Your task to perform on an android device: check the backup settings in the google photos Image 0: 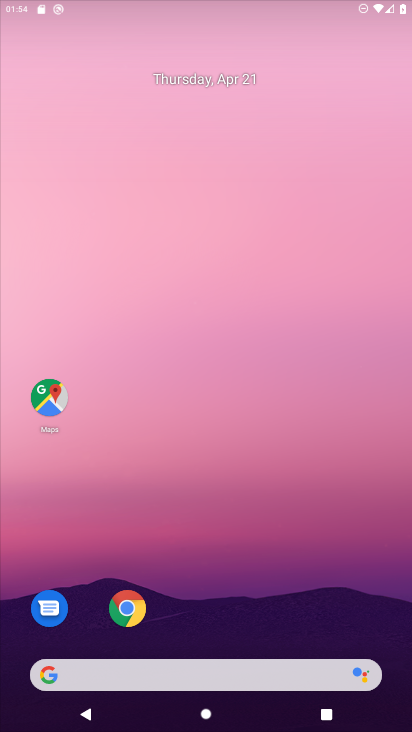
Step 0: drag from (249, 651) to (265, 253)
Your task to perform on an android device: check the backup settings in the google photos Image 1: 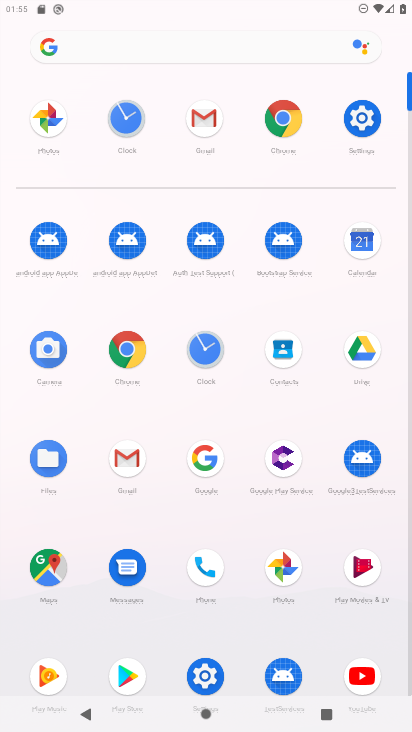
Step 1: click (288, 567)
Your task to perform on an android device: check the backup settings in the google photos Image 2: 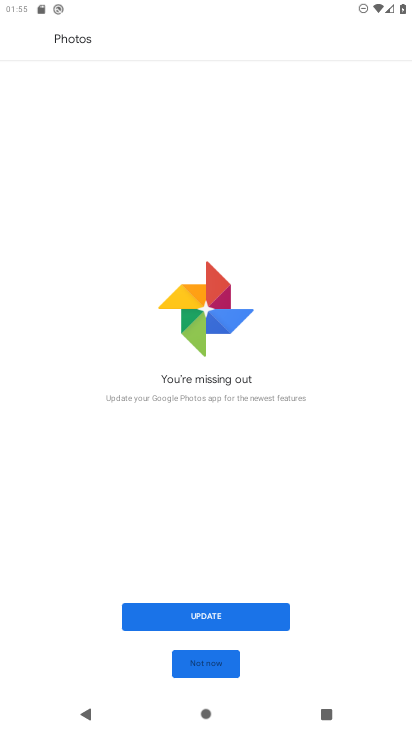
Step 2: click (211, 667)
Your task to perform on an android device: check the backup settings in the google photos Image 3: 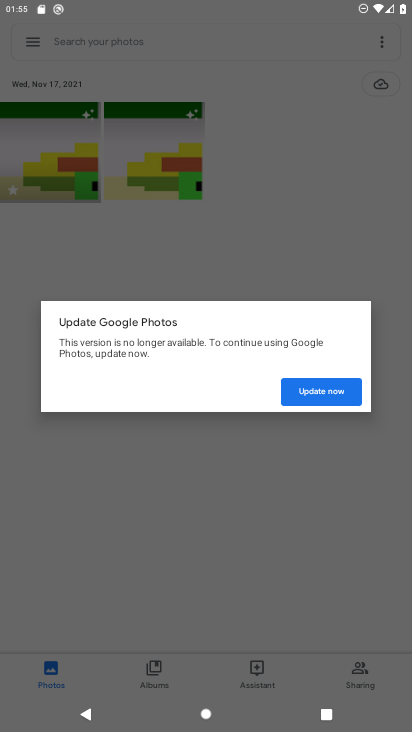
Step 3: click (315, 389)
Your task to perform on an android device: check the backup settings in the google photos Image 4: 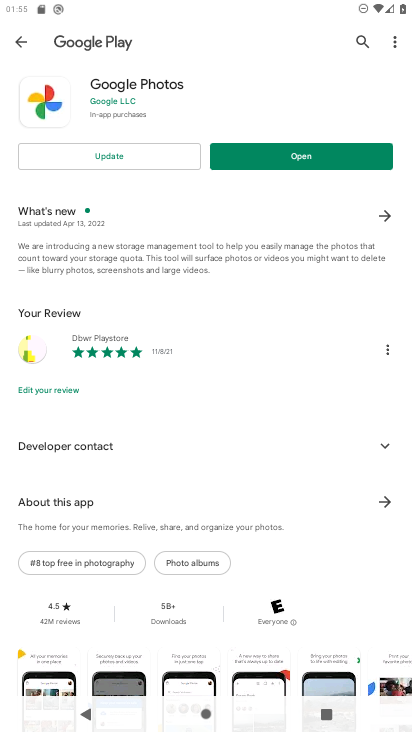
Step 4: press back button
Your task to perform on an android device: check the backup settings in the google photos Image 5: 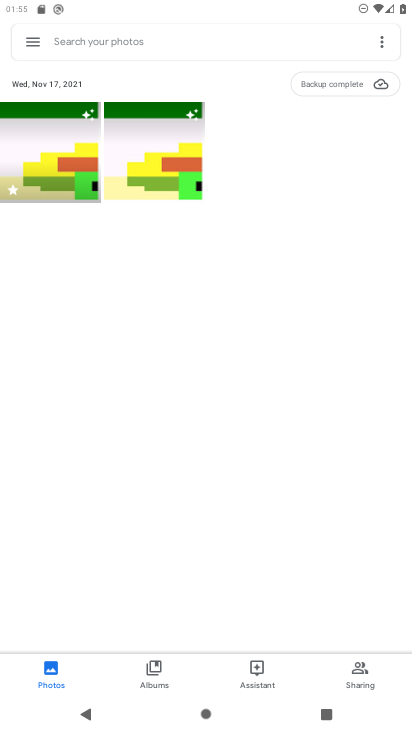
Step 5: click (29, 39)
Your task to perform on an android device: check the backup settings in the google photos Image 6: 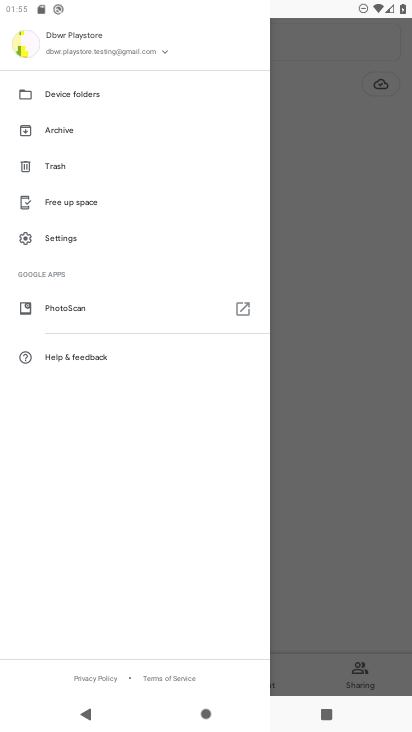
Step 6: click (81, 236)
Your task to perform on an android device: check the backup settings in the google photos Image 7: 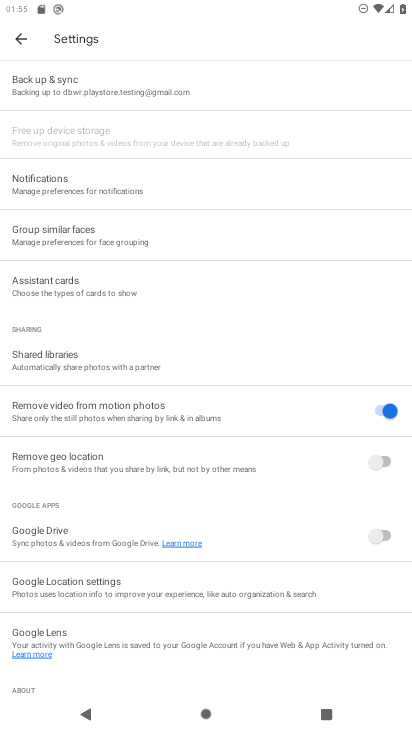
Step 7: click (71, 187)
Your task to perform on an android device: check the backup settings in the google photos Image 8: 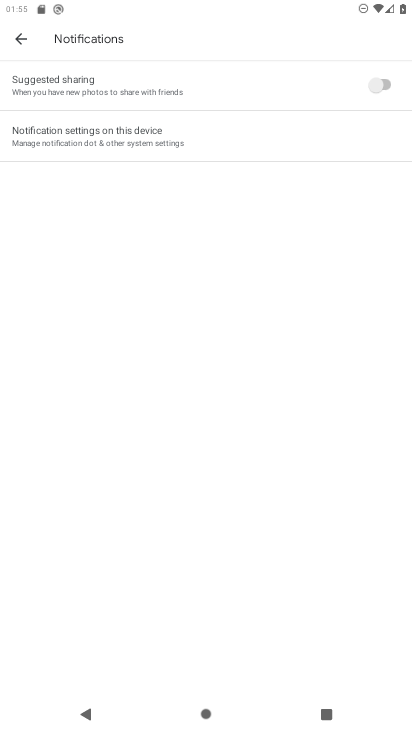
Step 8: click (102, 135)
Your task to perform on an android device: check the backup settings in the google photos Image 9: 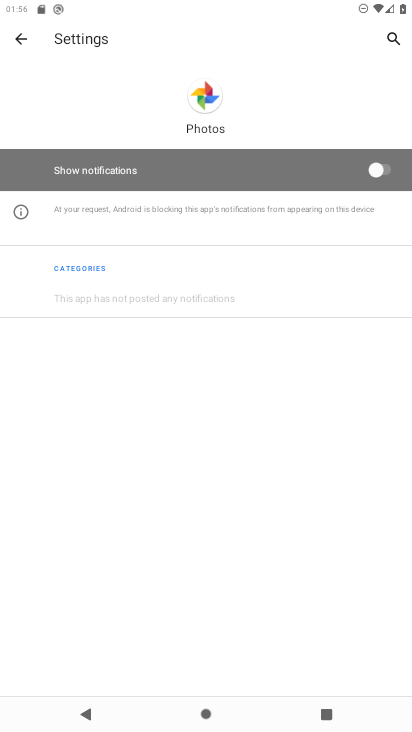
Step 9: click (29, 34)
Your task to perform on an android device: check the backup settings in the google photos Image 10: 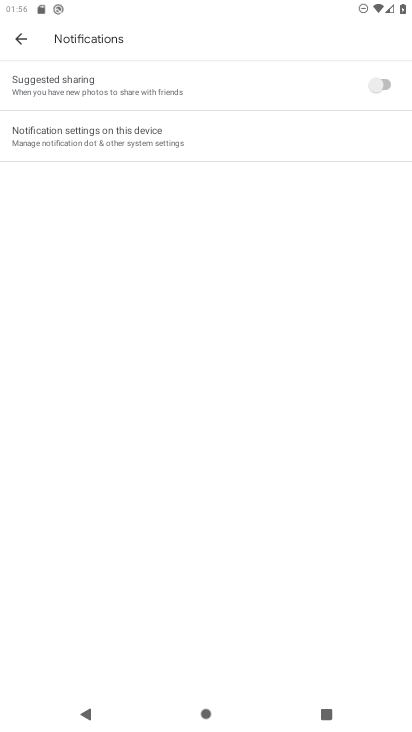
Step 10: click (24, 45)
Your task to perform on an android device: check the backup settings in the google photos Image 11: 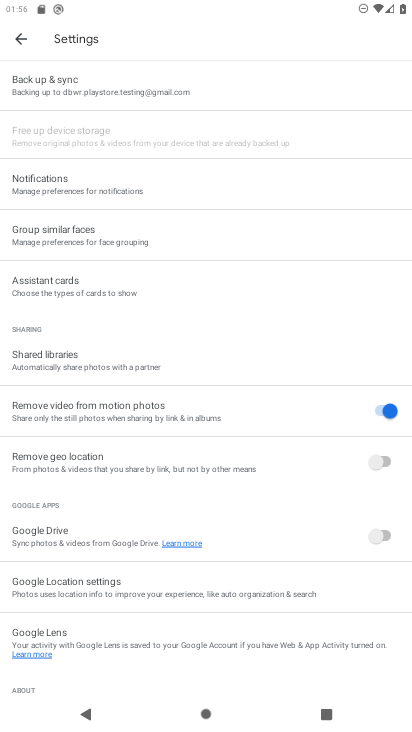
Step 11: click (101, 73)
Your task to perform on an android device: check the backup settings in the google photos Image 12: 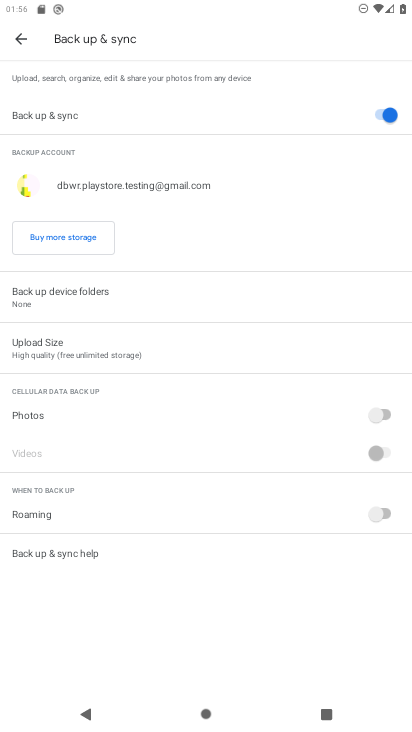
Step 12: task complete